Your task to perform on an android device: Go to Yahoo.com Image 0: 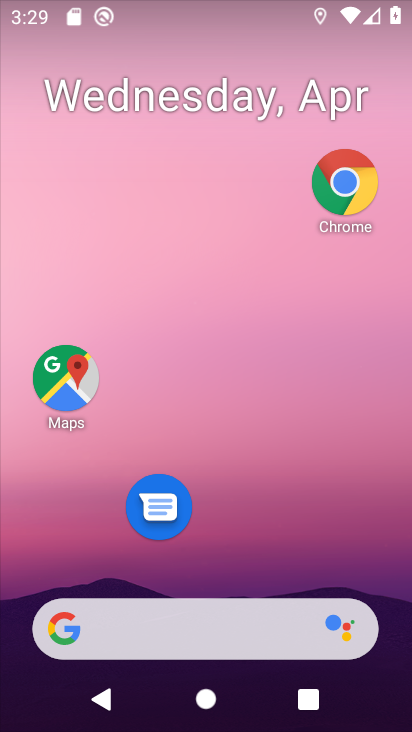
Step 0: click (366, 186)
Your task to perform on an android device: Go to Yahoo.com Image 1: 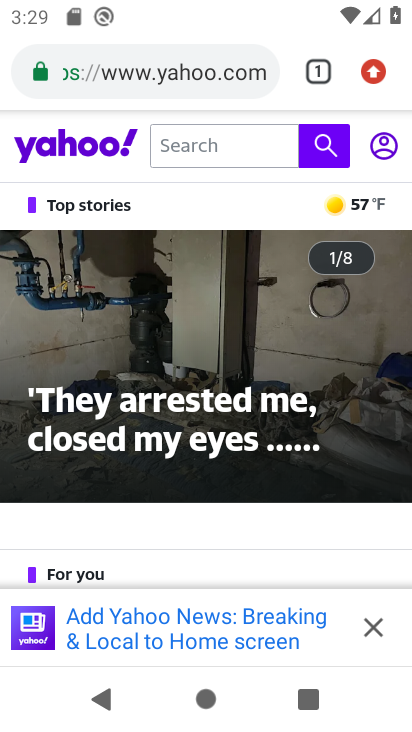
Step 1: task complete